Your task to perform on an android device: turn on improve location accuracy Image 0: 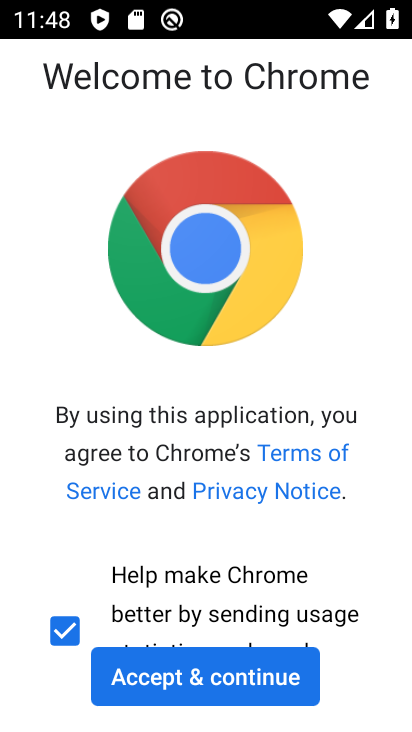
Step 0: click (200, 677)
Your task to perform on an android device: turn on improve location accuracy Image 1: 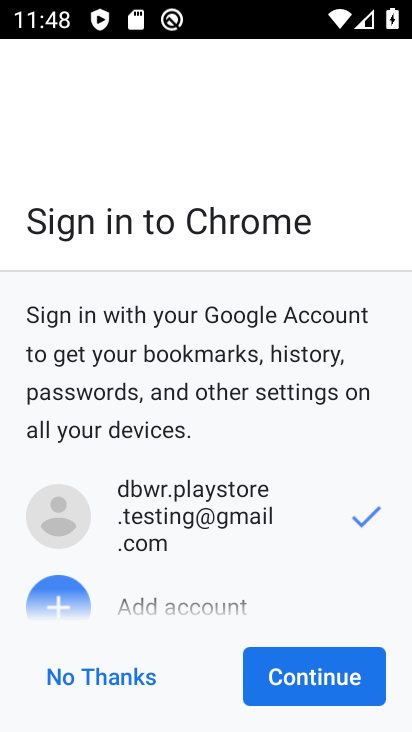
Step 1: click (293, 682)
Your task to perform on an android device: turn on improve location accuracy Image 2: 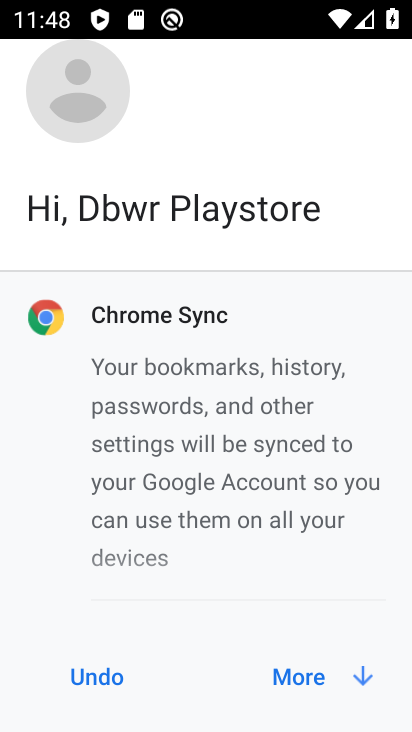
Step 2: click (293, 682)
Your task to perform on an android device: turn on improve location accuracy Image 3: 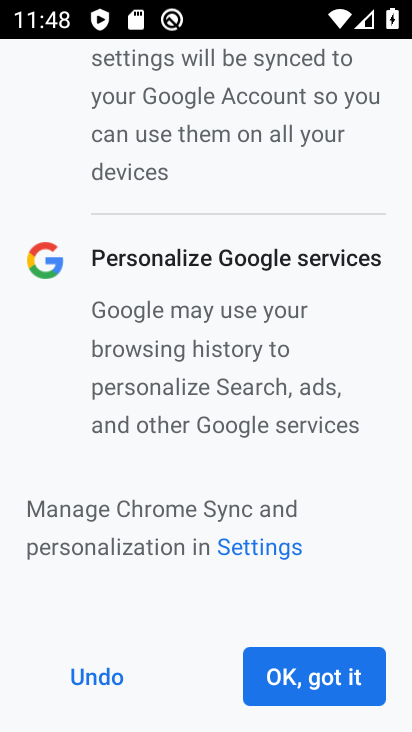
Step 3: click (293, 682)
Your task to perform on an android device: turn on improve location accuracy Image 4: 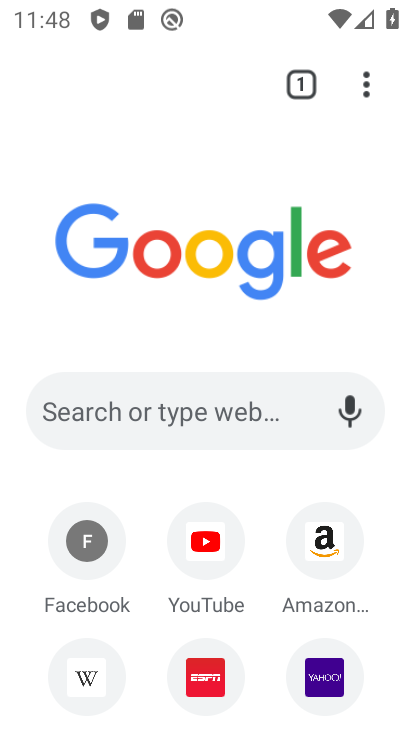
Step 4: press home button
Your task to perform on an android device: turn on improve location accuracy Image 5: 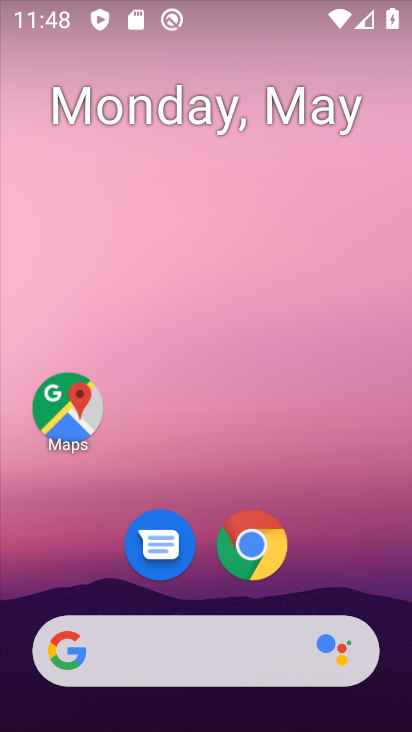
Step 5: drag from (190, 580) to (367, 22)
Your task to perform on an android device: turn on improve location accuracy Image 6: 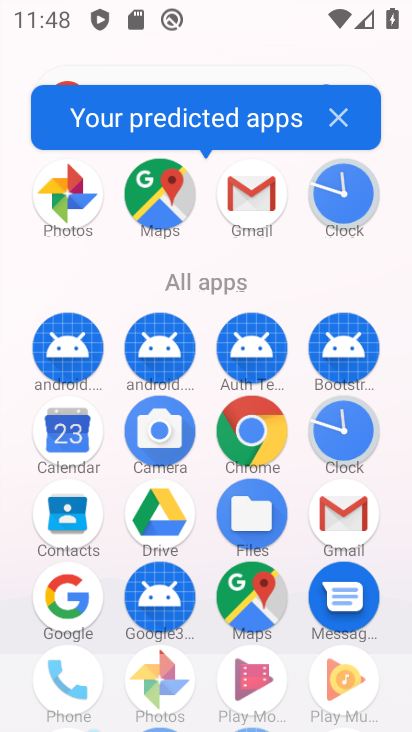
Step 6: drag from (292, 566) to (296, 120)
Your task to perform on an android device: turn on improve location accuracy Image 7: 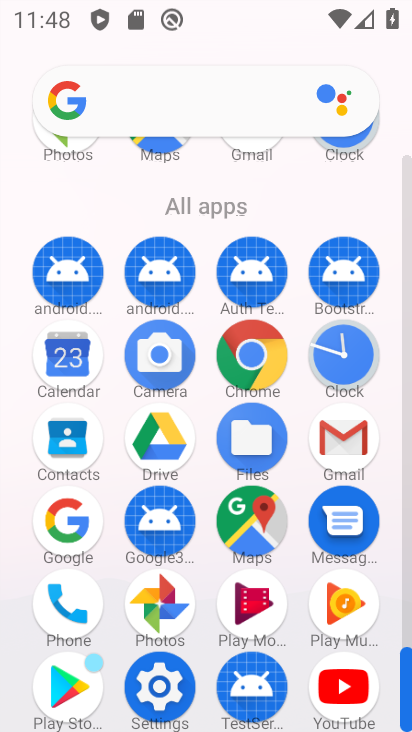
Step 7: click (158, 662)
Your task to perform on an android device: turn on improve location accuracy Image 8: 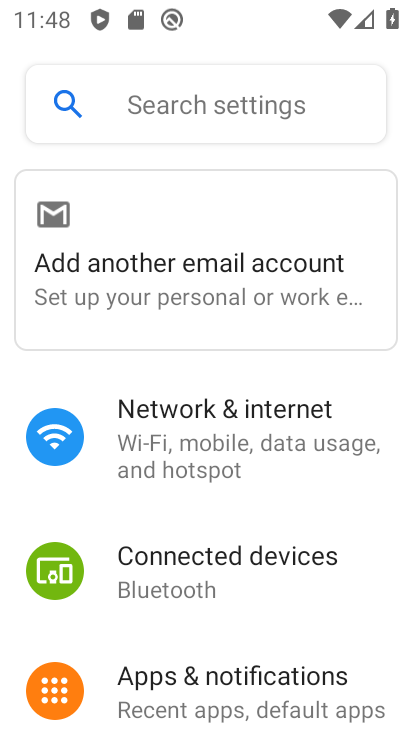
Step 8: drag from (158, 662) to (185, 139)
Your task to perform on an android device: turn on improve location accuracy Image 9: 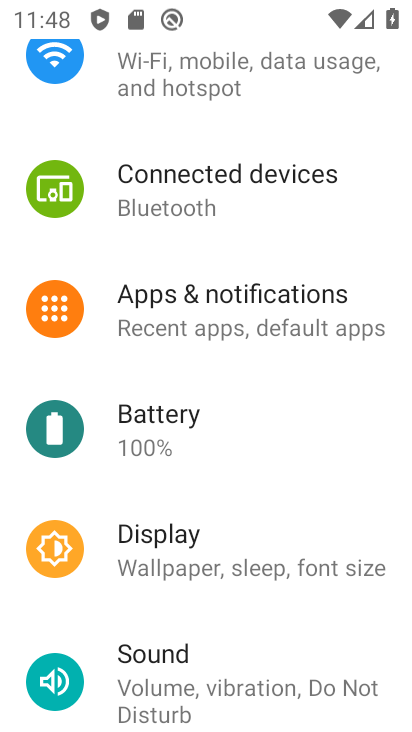
Step 9: drag from (128, 597) to (189, 82)
Your task to perform on an android device: turn on improve location accuracy Image 10: 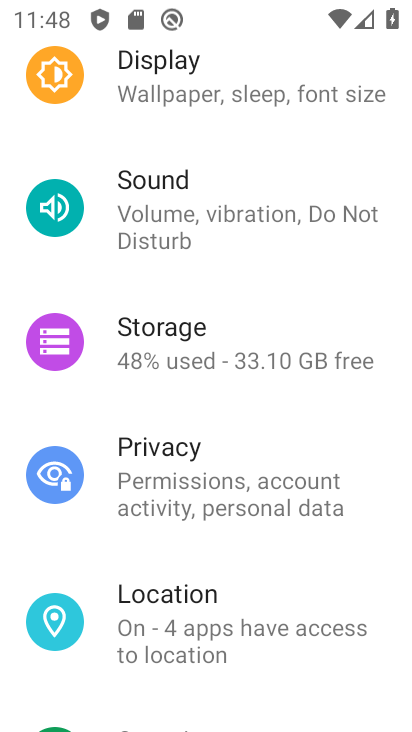
Step 10: click (178, 643)
Your task to perform on an android device: turn on improve location accuracy Image 11: 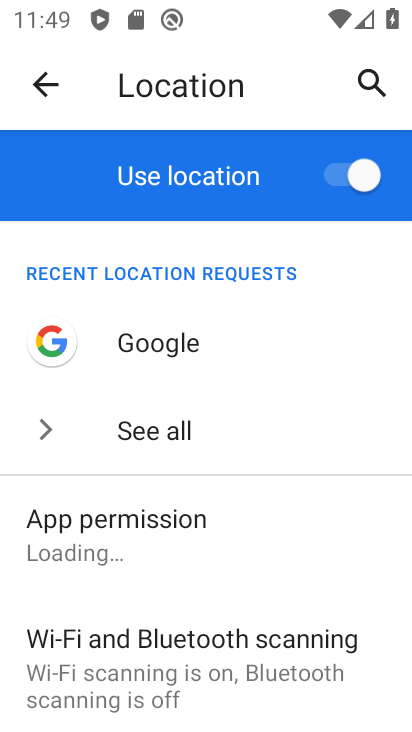
Step 11: drag from (178, 643) to (269, 179)
Your task to perform on an android device: turn on improve location accuracy Image 12: 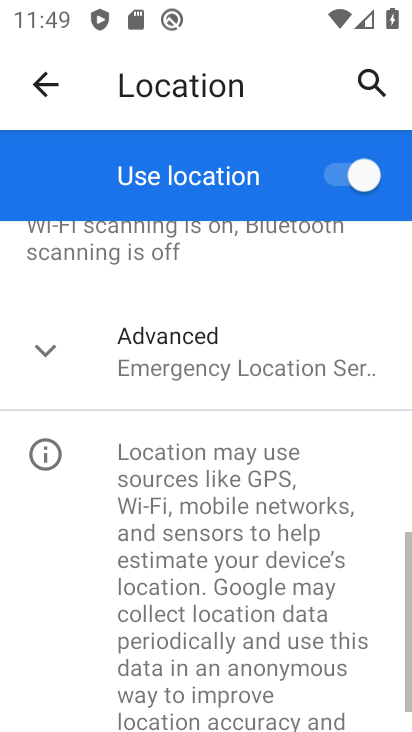
Step 12: click (290, 350)
Your task to perform on an android device: turn on improve location accuracy Image 13: 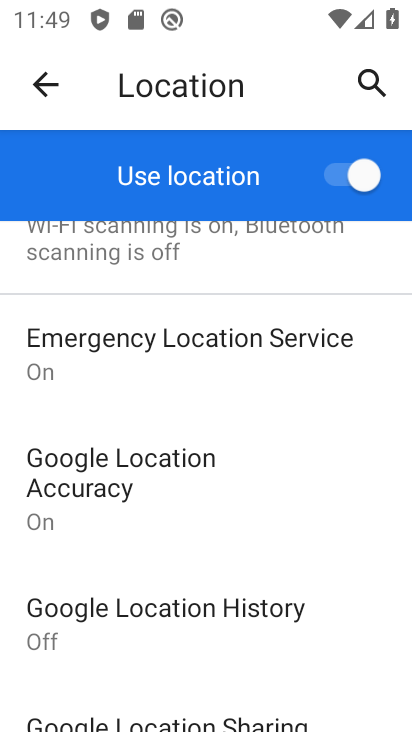
Step 13: click (217, 487)
Your task to perform on an android device: turn on improve location accuracy Image 14: 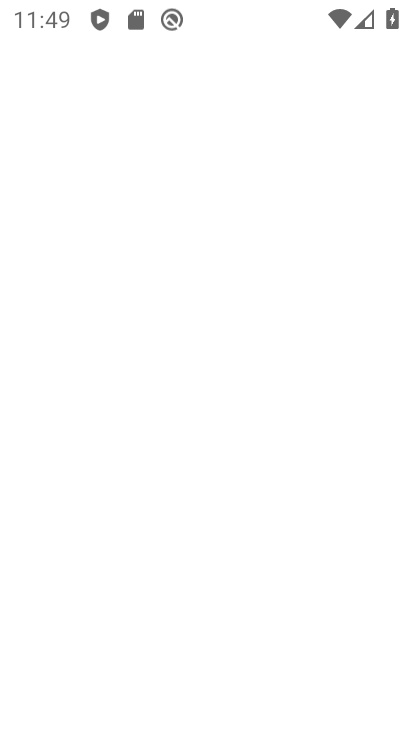
Step 14: task complete